Your task to perform on an android device: Go to CNN.com Image 0: 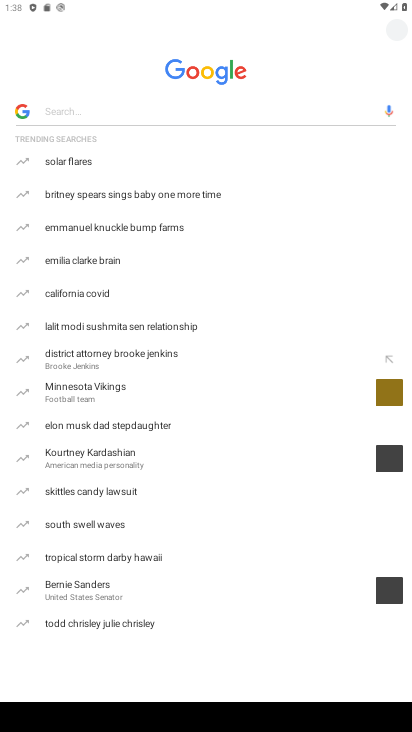
Step 0: press home button
Your task to perform on an android device: Go to CNN.com Image 1: 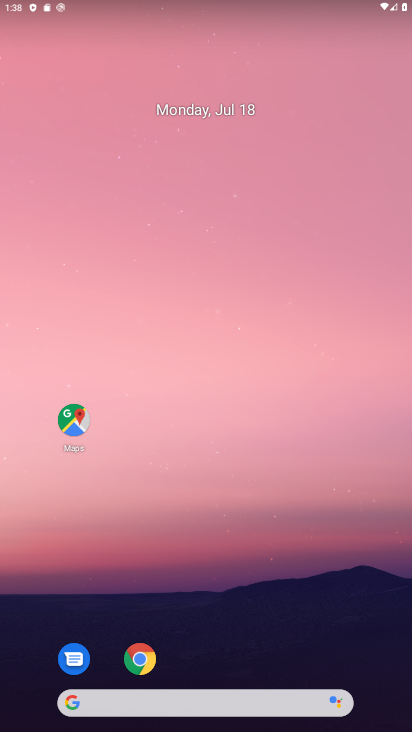
Step 1: click (139, 660)
Your task to perform on an android device: Go to CNN.com Image 2: 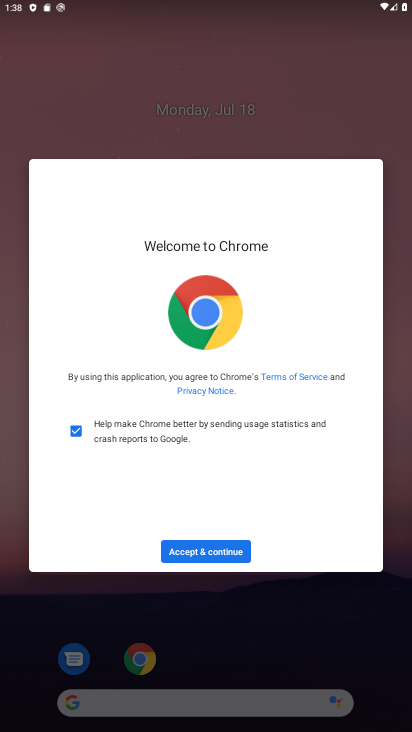
Step 2: click (235, 548)
Your task to perform on an android device: Go to CNN.com Image 3: 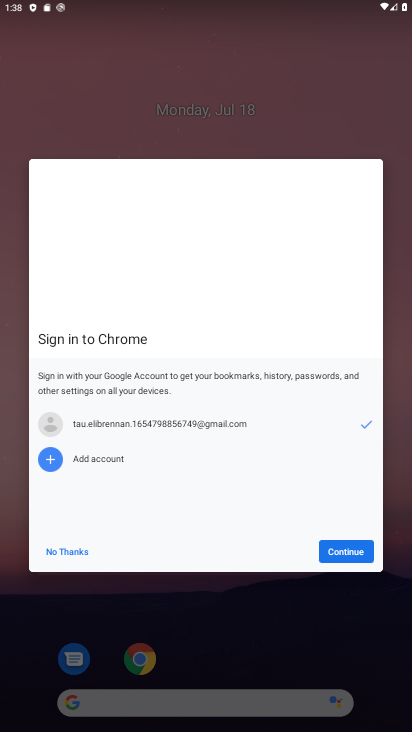
Step 3: click (348, 553)
Your task to perform on an android device: Go to CNN.com Image 4: 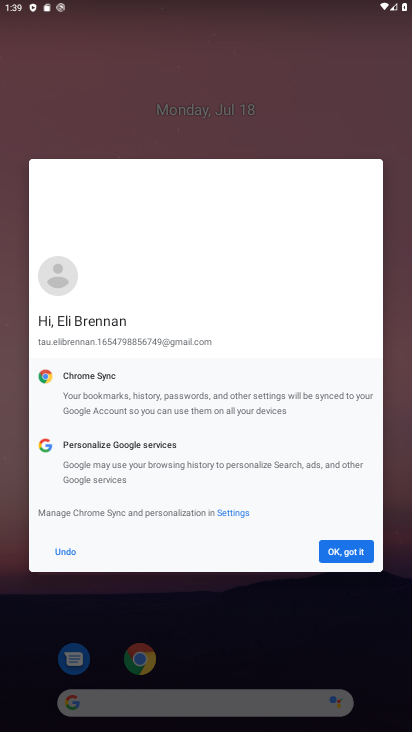
Step 4: click (351, 553)
Your task to perform on an android device: Go to CNN.com Image 5: 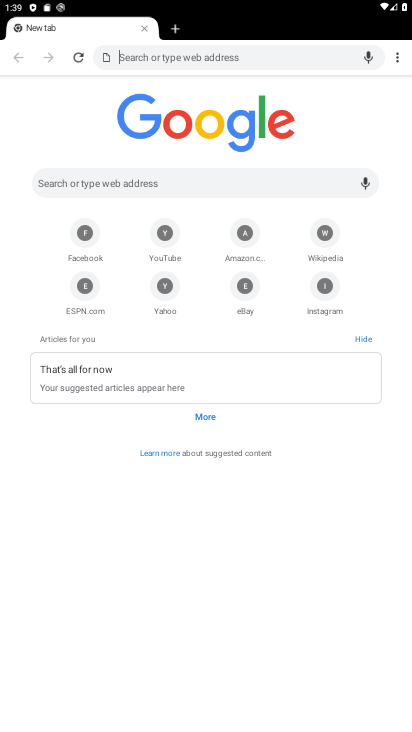
Step 5: click (247, 58)
Your task to perform on an android device: Go to CNN.com Image 6: 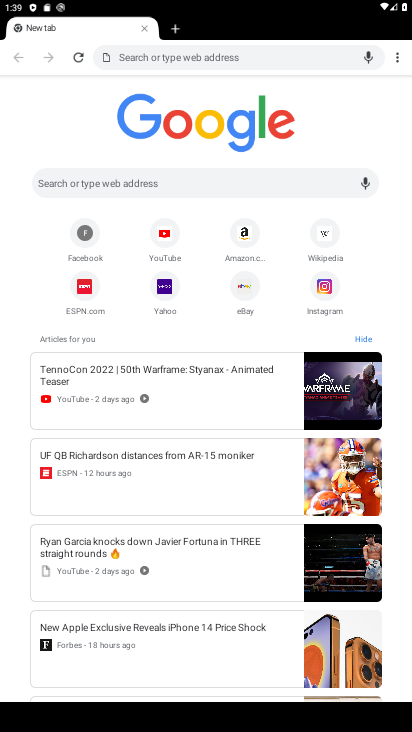
Step 6: type "cnn.com"
Your task to perform on an android device: Go to CNN.com Image 7: 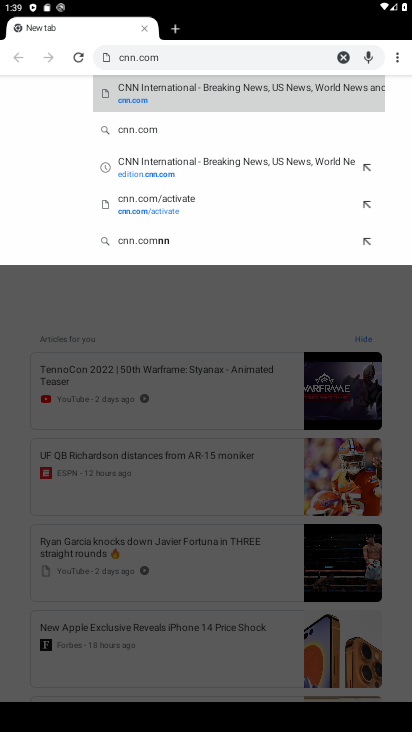
Step 7: click (136, 100)
Your task to perform on an android device: Go to CNN.com Image 8: 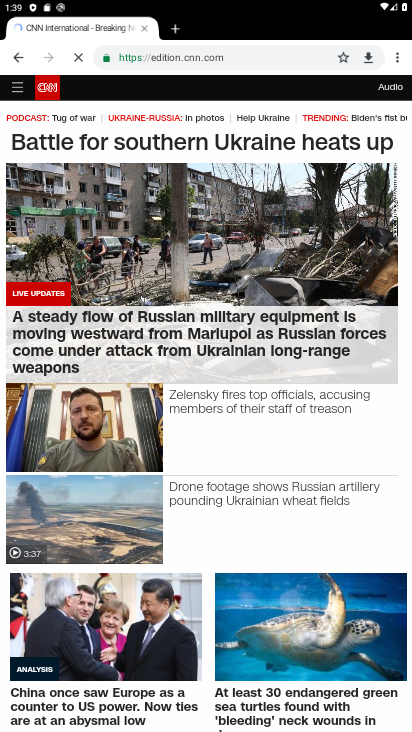
Step 8: task complete